Your task to perform on an android device: delete the emails in spam in the gmail app Image 0: 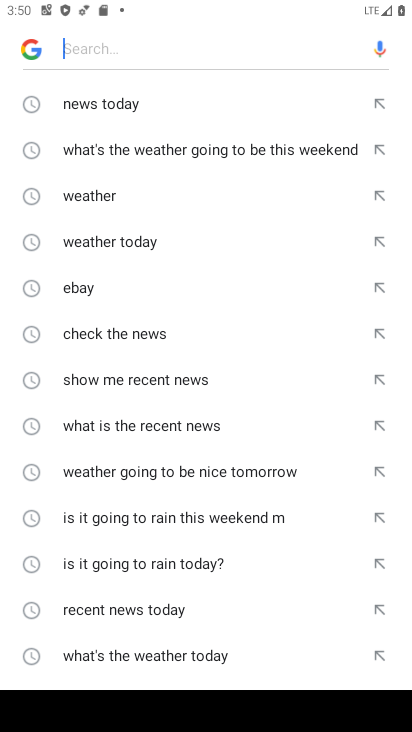
Step 0: press home button
Your task to perform on an android device: delete the emails in spam in the gmail app Image 1: 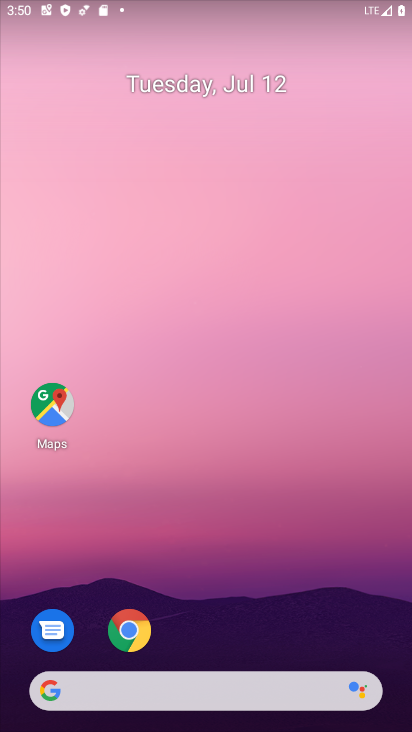
Step 1: drag from (261, 704) to (313, 16)
Your task to perform on an android device: delete the emails in spam in the gmail app Image 2: 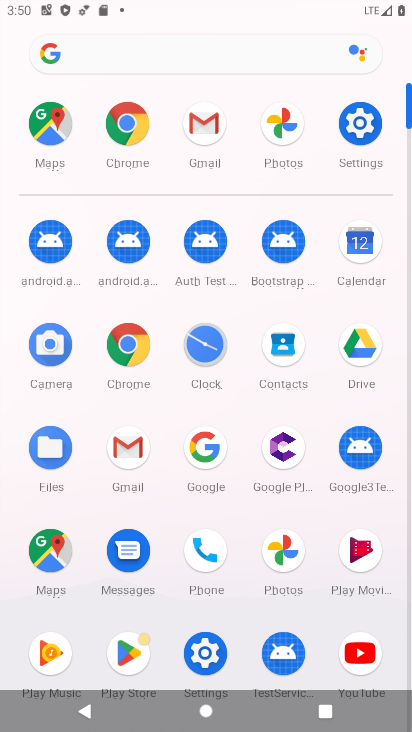
Step 2: click (120, 443)
Your task to perform on an android device: delete the emails in spam in the gmail app Image 3: 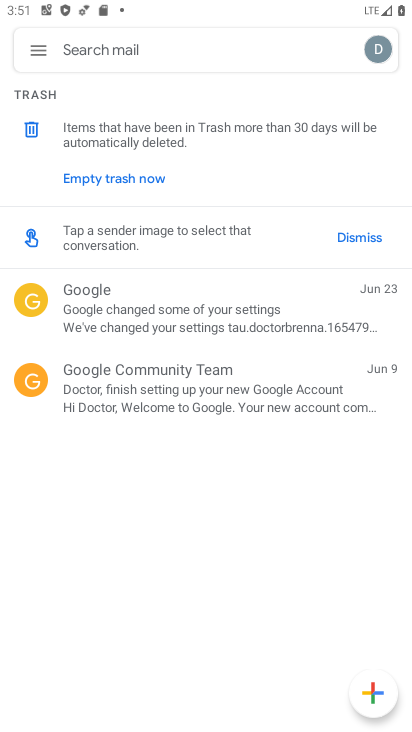
Step 3: click (40, 45)
Your task to perform on an android device: delete the emails in spam in the gmail app Image 4: 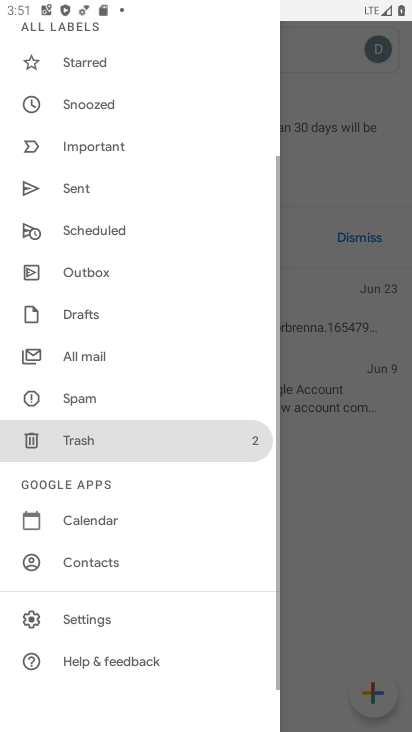
Step 4: click (84, 401)
Your task to perform on an android device: delete the emails in spam in the gmail app Image 5: 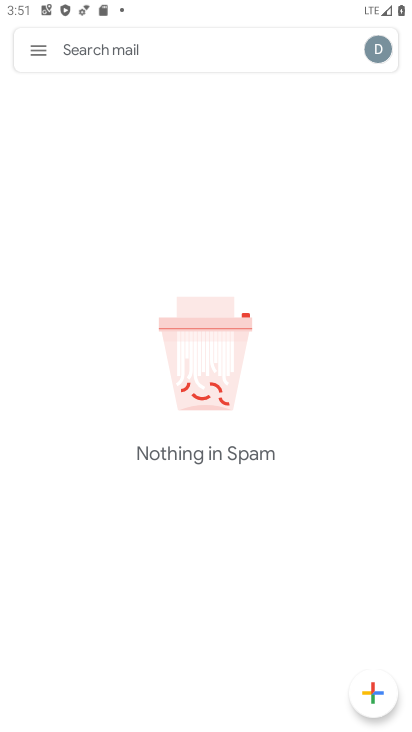
Step 5: task complete